Your task to perform on an android device: Open privacy settings Image 0: 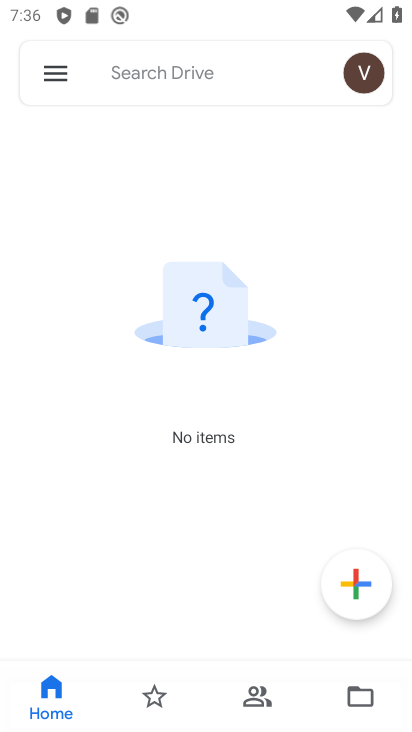
Step 0: press home button
Your task to perform on an android device: Open privacy settings Image 1: 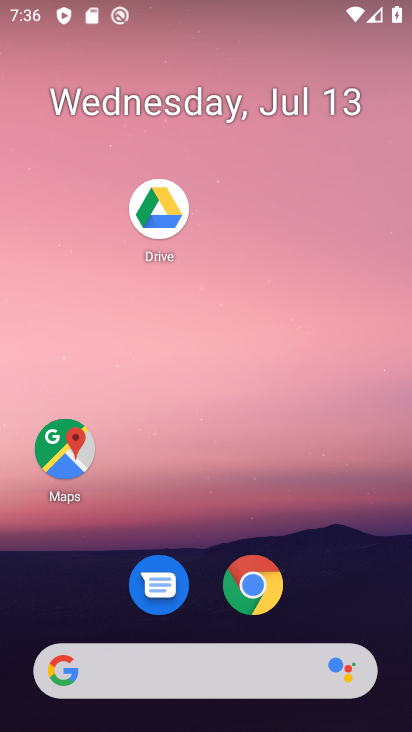
Step 1: drag from (161, 646) to (280, 210)
Your task to perform on an android device: Open privacy settings Image 2: 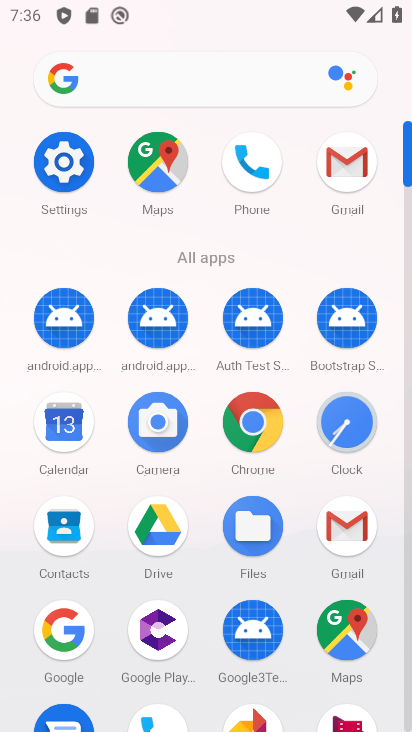
Step 2: click (56, 169)
Your task to perform on an android device: Open privacy settings Image 3: 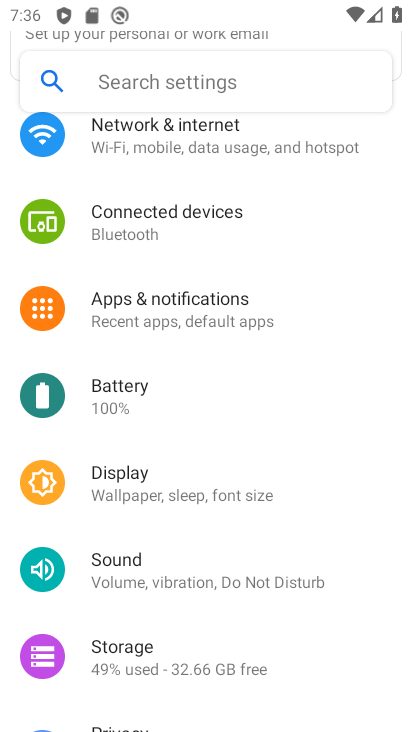
Step 3: drag from (227, 506) to (270, 244)
Your task to perform on an android device: Open privacy settings Image 4: 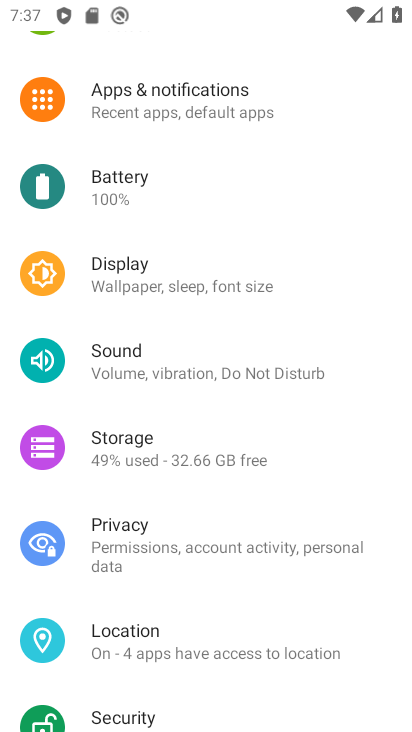
Step 4: click (142, 533)
Your task to perform on an android device: Open privacy settings Image 5: 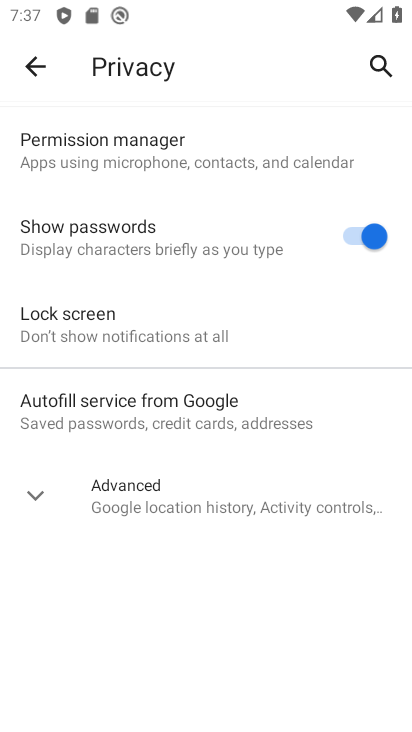
Step 5: task complete